Your task to perform on an android device: Open the phone app and click the voicemail tab. Image 0: 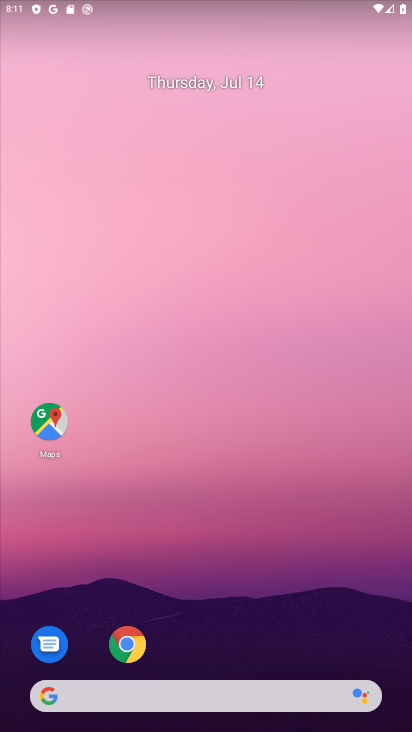
Step 0: drag from (212, 666) to (364, 27)
Your task to perform on an android device: Open the phone app and click the voicemail tab. Image 1: 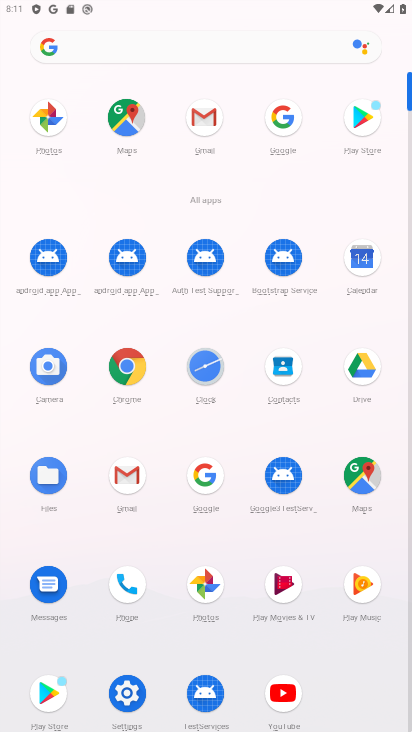
Step 1: click (118, 597)
Your task to perform on an android device: Open the phone app and click the voicemail tab. Image 2: 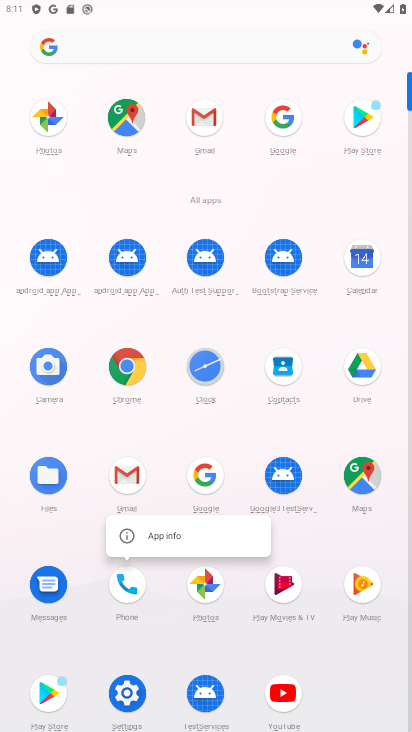
Step 2: click (120, 593)
Your task to perform on an android device: Open the phone app and click the voicemail tab. Image 3: 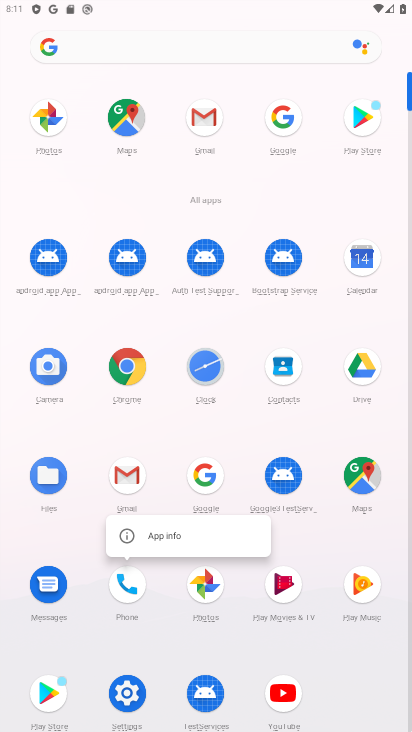
Step 3: click (130, 579)
Your task to perform on an android device: Open the phone app and click the voicemail tab. Image 4: 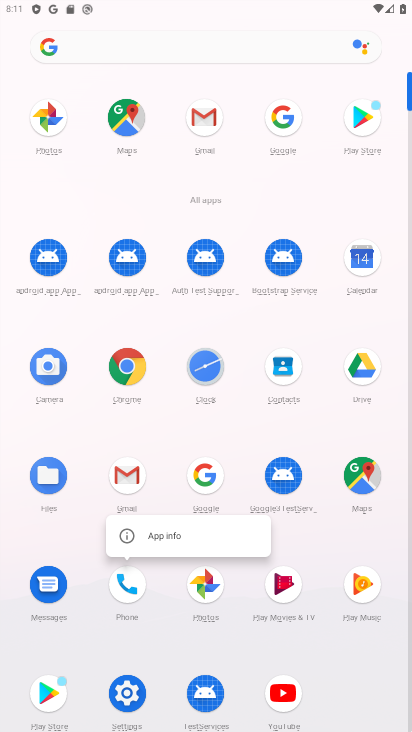
Step 4: click (130, 579)
Your task to perform on an android device: Open the phone app and click the voicemail tab. Image 5: 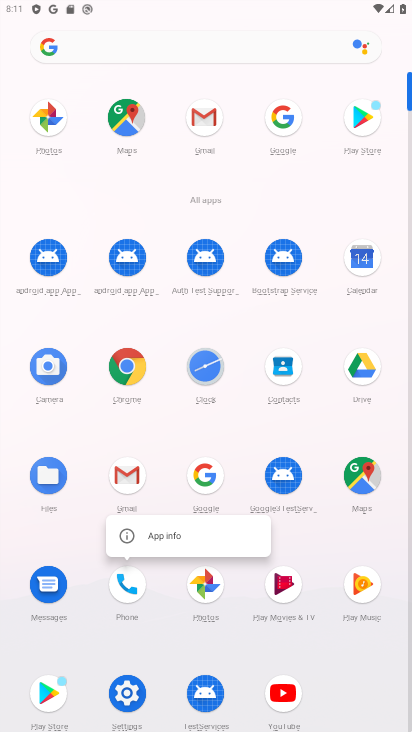
Step 5: click (128, 593)
Your task to perform on an android device: Open the phone app and click the voicemail tab. Image 6: 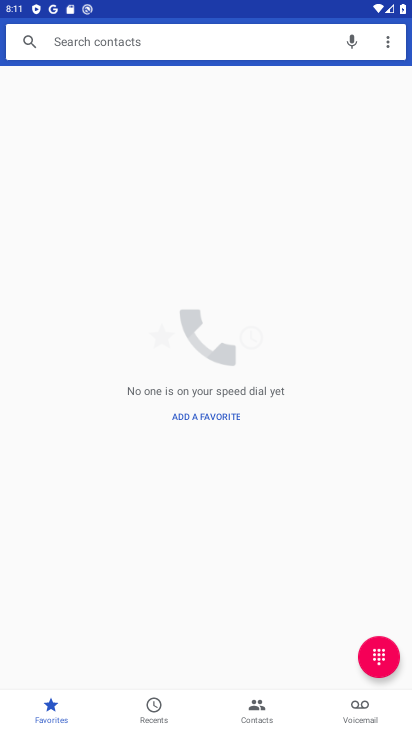
Step 6: click (375, 714)
Your task to perform on an android device: Open the phone app and click the voicemail tab. Image 7: 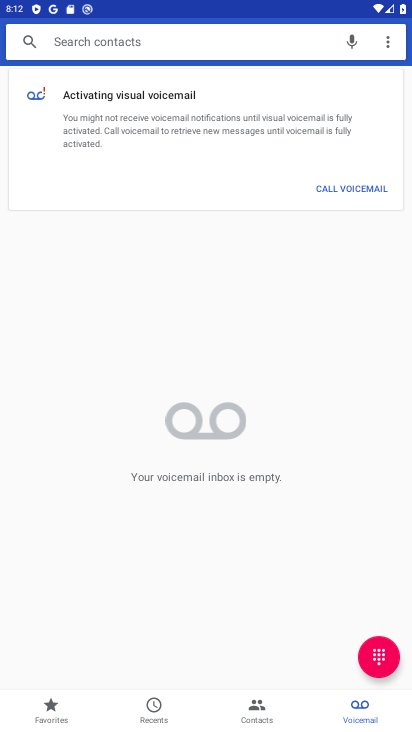
Step 7: task complete